Your task to perform on an android device: snooze an email in the gmail app Image 0: 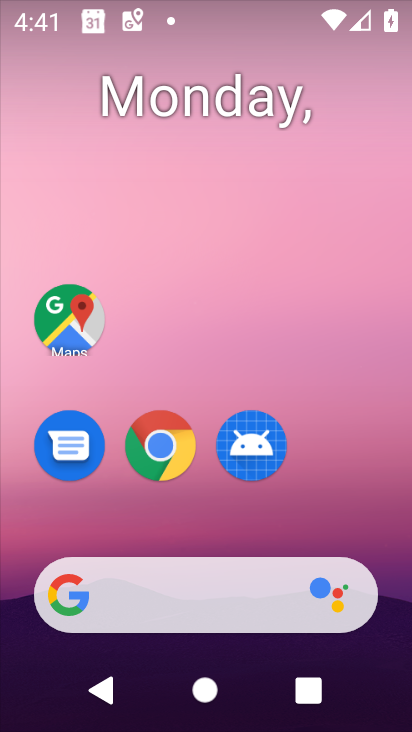
Step 0: drag from (220, 477) to (226, 105)
Your task to perform on an android device: snooze an email in the gmail app Image 1: 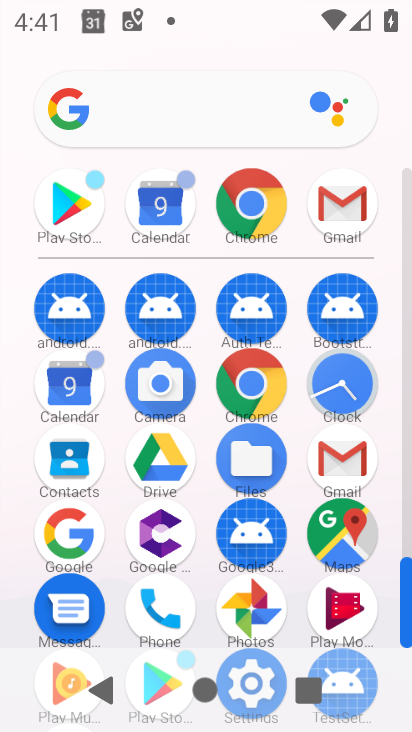
Step 1: click (333, 201)
Your task to perform on an android device: snooze an email in the gmail app Image 2: 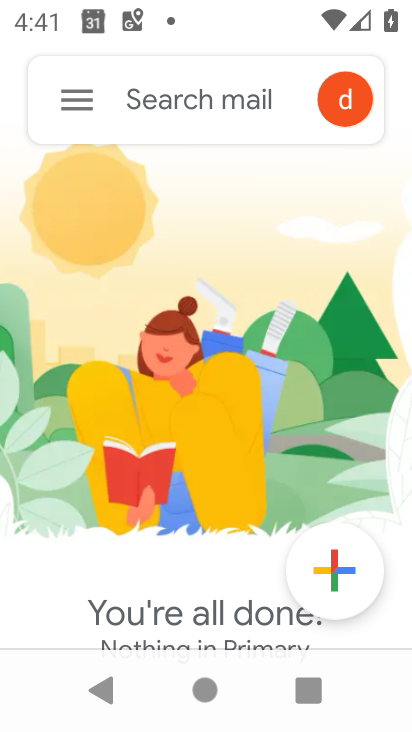
Step 2: click (80, 103)
Your task to perform on an android device: snooze an email in the gmail app Image 3: 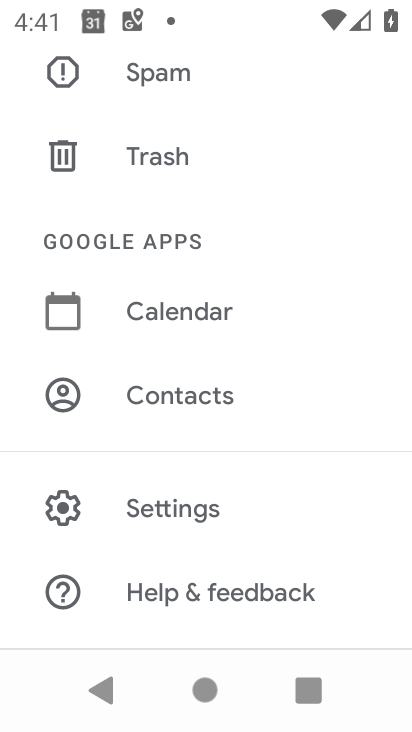
Step 3: task complete